Your task to perform on an android device: Open Yahoo.com Image 0: 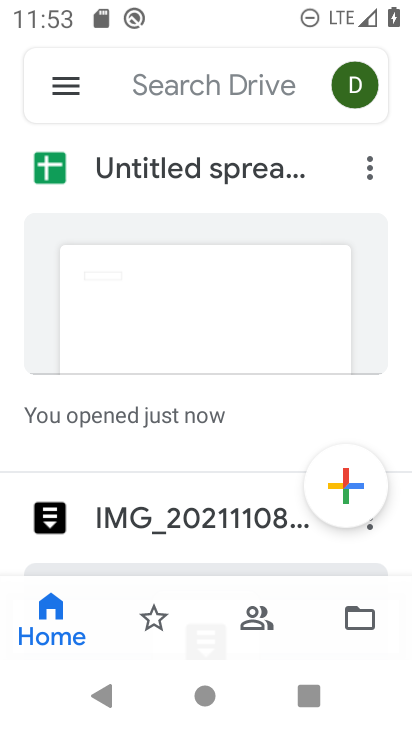
Step 0: press home button
Your task to perform on an android device: Open Yahoo.com Image 1: 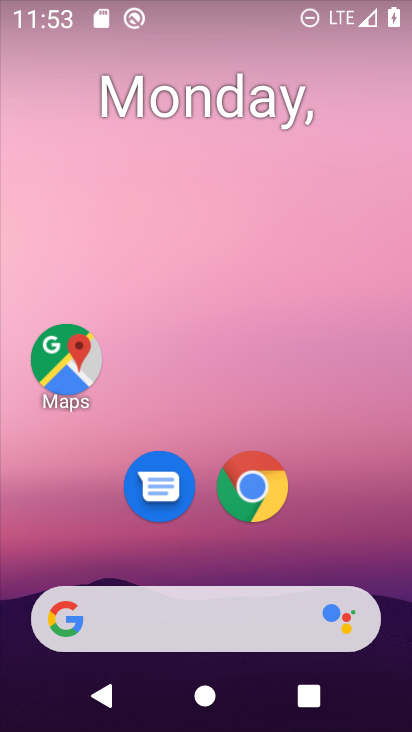
Step 1: click (247, 488)
Your task to perform on an android device: Open Yahoo.com Image 2: 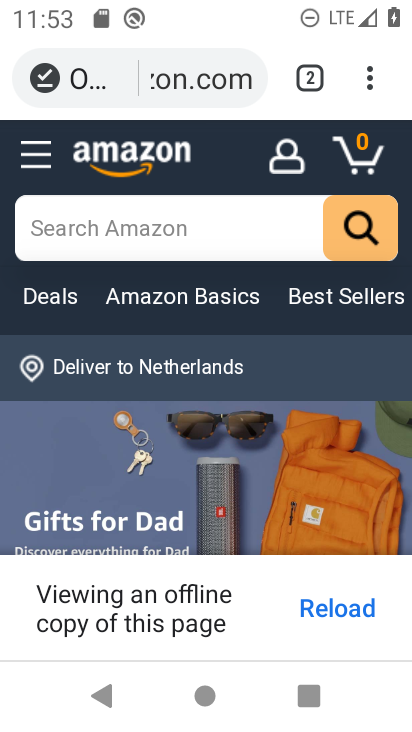
Step 2: click (315, 81)
Your task to perform on an android device: Open Yahoo.com Image 3: 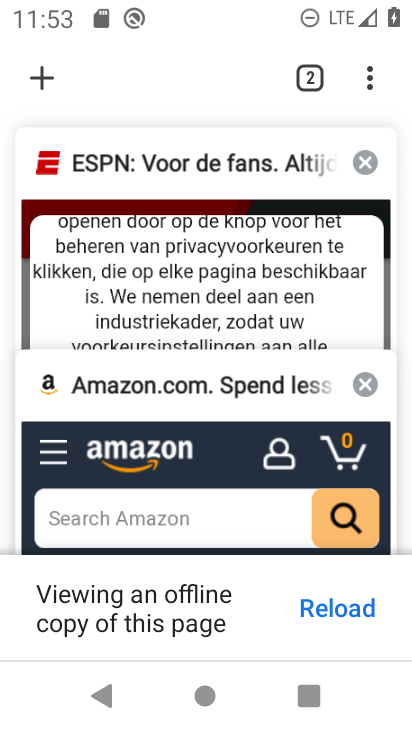
Step 3: click (368, 159)
Your task to perform on an android device: Open Yahoo.com Image 4: 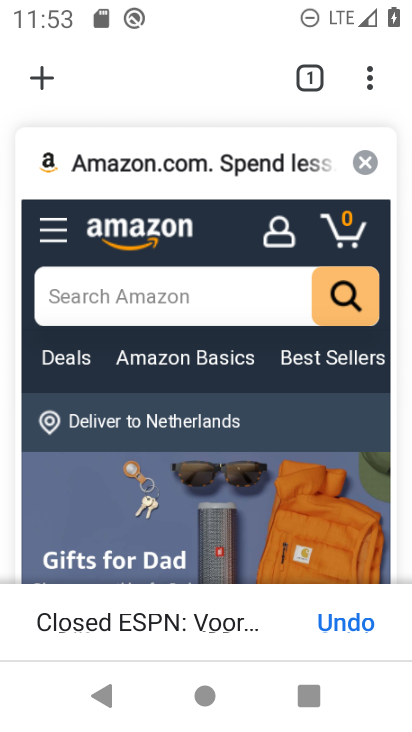
Step 4: click (368, 159)
Your task to perform on an android device: Open Yahoo.com Image 5: 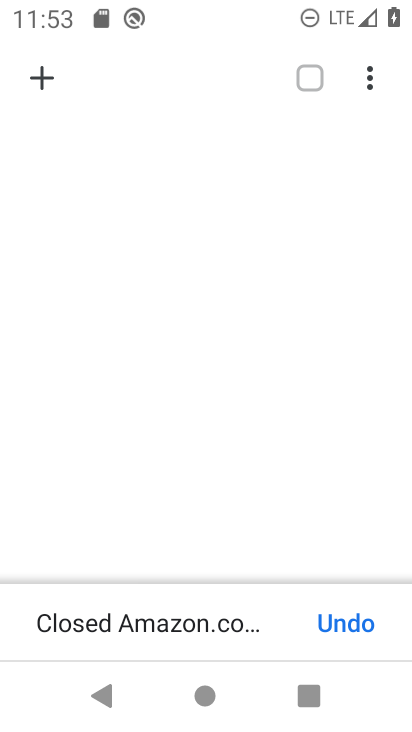
Step 5: click (48, 69)
Your task to perform on an android device: Open Yahoo.com Image 6: 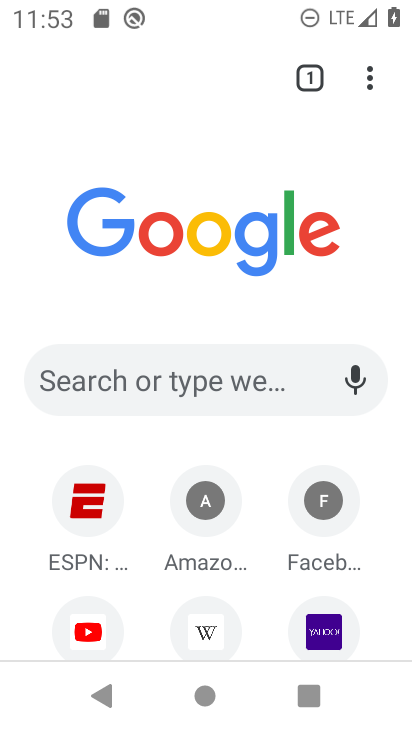
Step 6: click (338, 626)
Your task to perform on an android device: Open Yahoo.com Image 7: 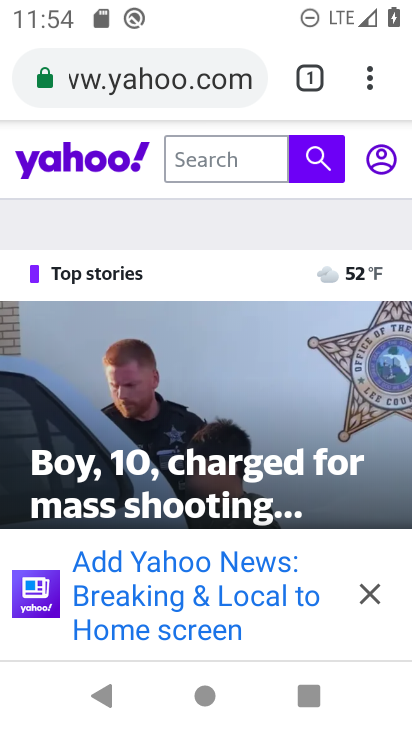
Step 7: task complete